Your task to perform on an android device: Show me popular videos on Youtube Image 0: 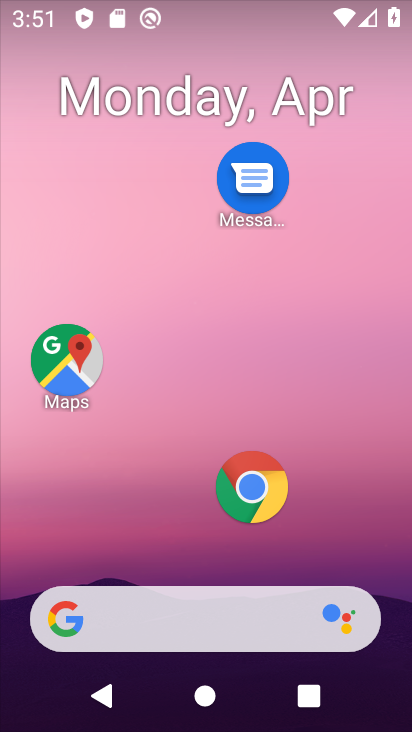
Step 0: drag from (174, 556) to (245, 10)
Your task to perform on an android device: Show me popular videos on Youtube Image 1: 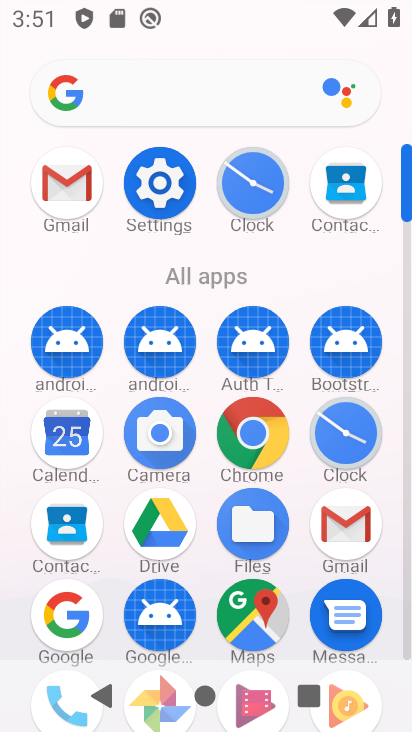
Step 1: drag from (221, 567) to (297, 2)
Your task to perform on an android device: Show me popular videos on Youtube Image 2: 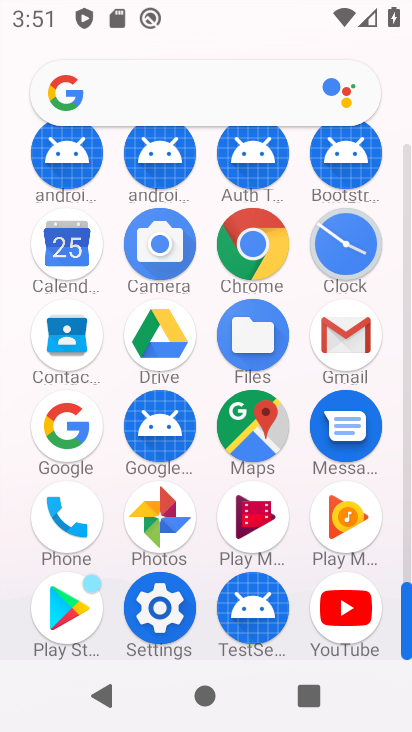
Step 2: click (334, 597)
Your task to perform on an android device: Show me popular videos on Youtube Image 3: 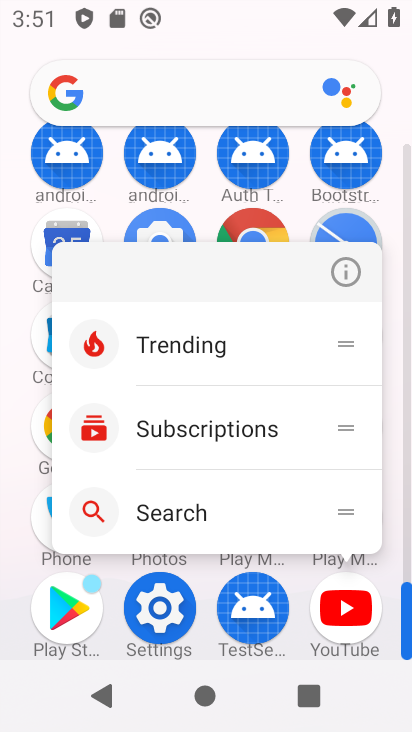
Step 3: click (340, 607)
Your task to perform on an android device: Show me popular videos on Youtube Image 4: 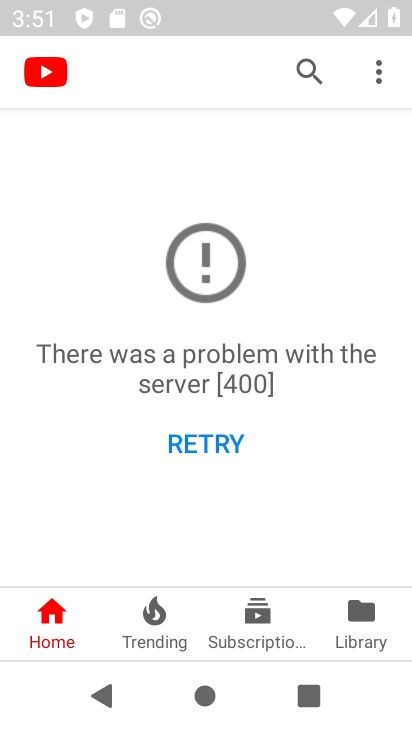
Step 4: click (162, 622)
Your task to perform on an android device: Show me popular videos on Youtube Image 5: 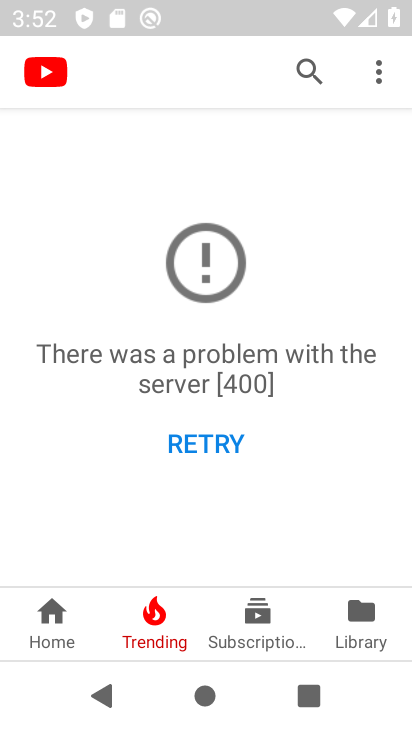
Step 5: task complete